Your task to perform on an android device: Go to eBay Image 0: 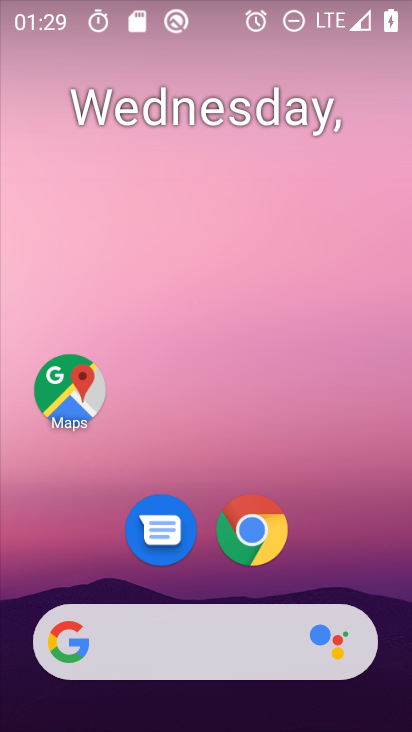
Step 0: drag from (236, 632) to (224, 22)
Your task to perform on an android device: Go to eBay Image 1: 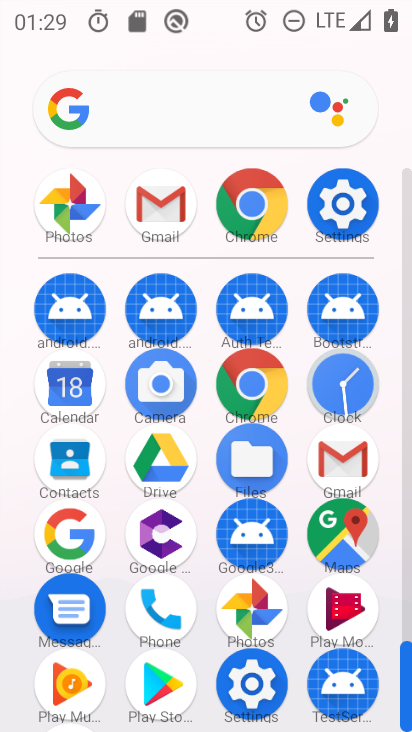
Step 1: click (263, 392)
Your task to perform on an android device: Go to eBay Image 2: 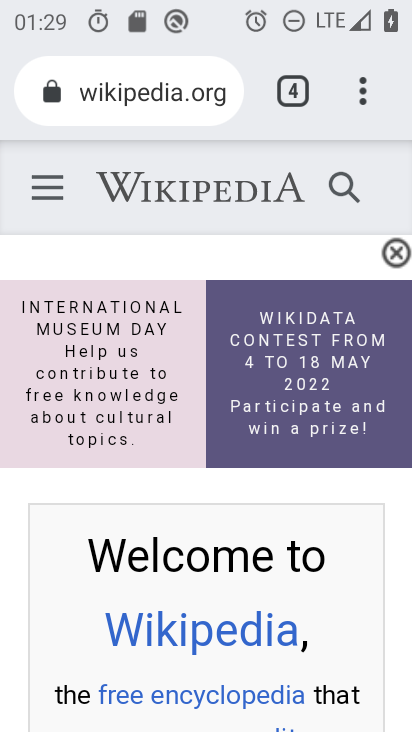
Step 2: click (294, 83)
Your task to perform on an android device: Go to eBay Image 3: 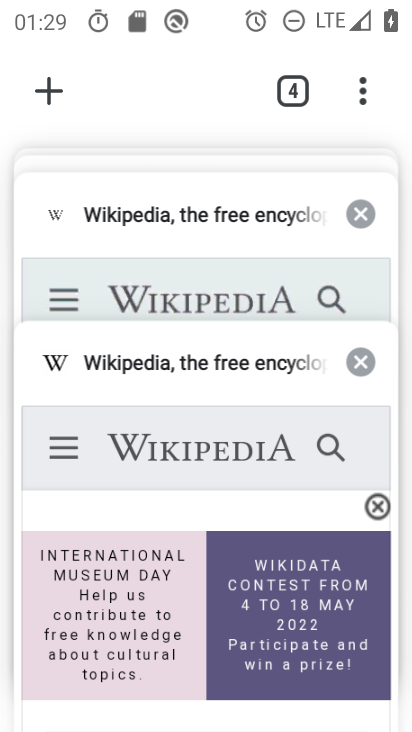
Step 3: drag from (263, 226) to (255, 525)
Your task to perform on an android device: Go to eBay Image 4: 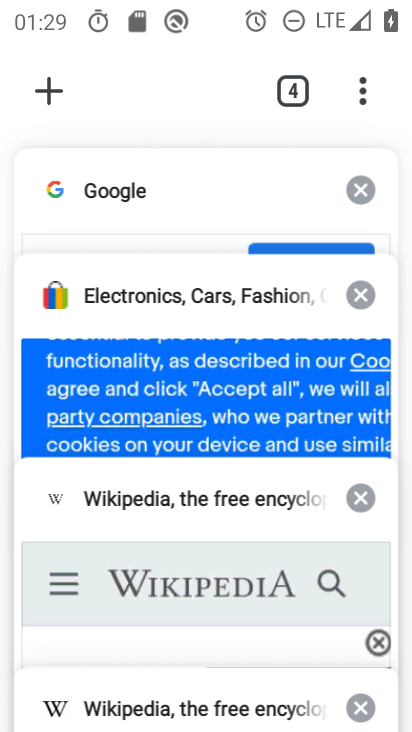
Step 4: press back button
Your task to perform on an android device: Go to eBay Image 5: 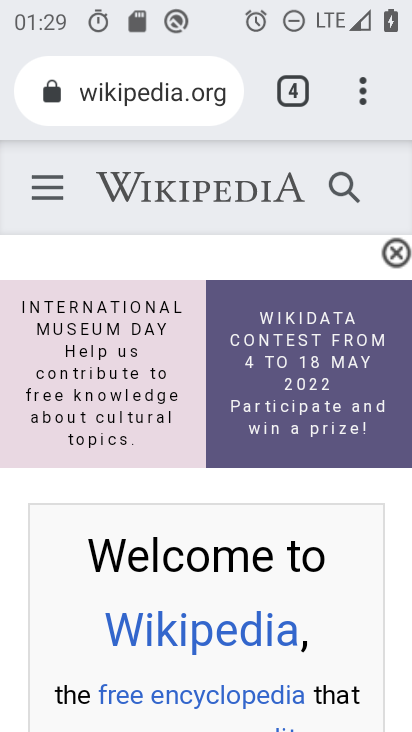
Step 5: click (148, 103)
Your task to perform on an android device: Go to eBay Image 6: 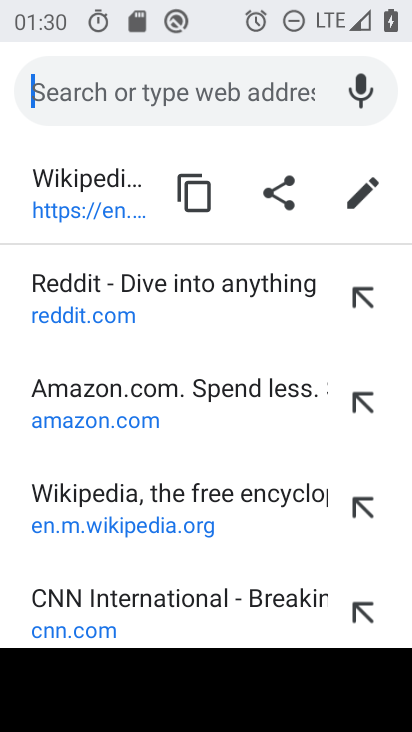
Step 6: type "ebay"
Your task to perform on an android device: Go to eBay Image 7: 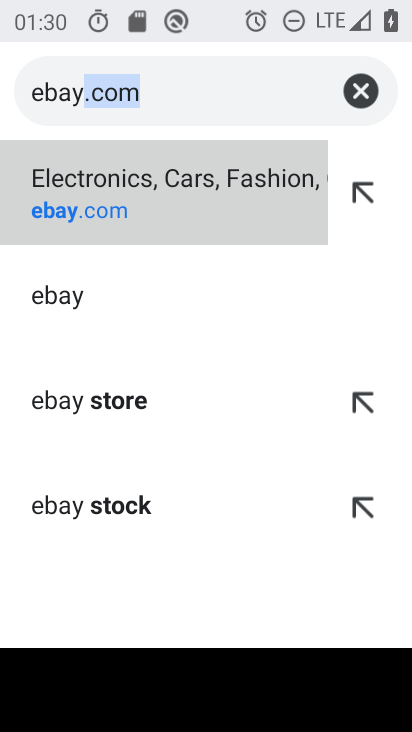
Step 7: click (255, 207)
Your task to perform on an android device: Go to eBay Image 8: 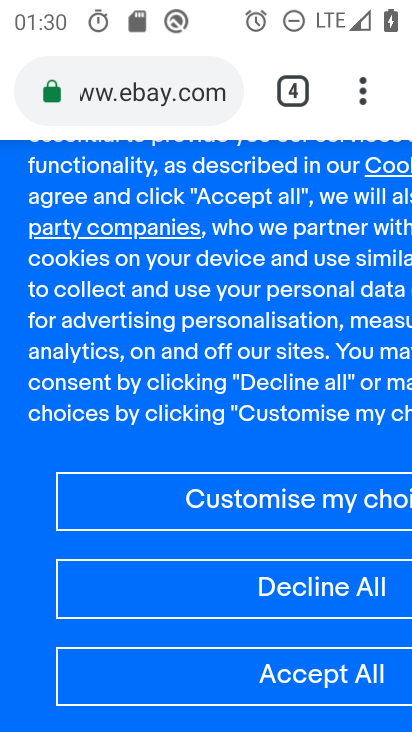
Step 8: task complete